Your task to perform on an android device: Search for pizza restaurants on Maps Image 0: 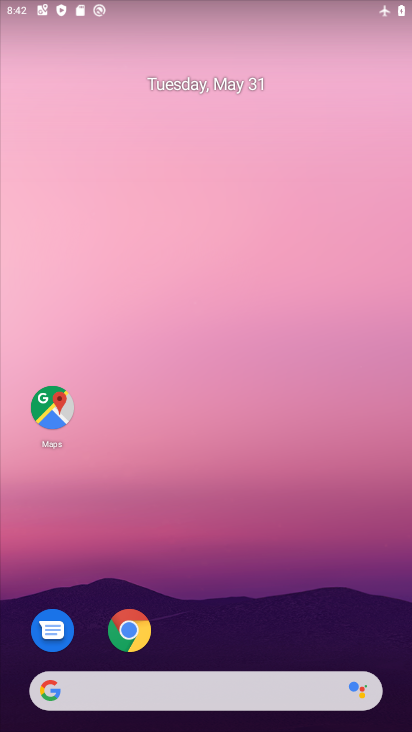
Step 0: click (57, 402)
Your task to perform on an android device: Search for pizza restaurants on Maps Image 1: 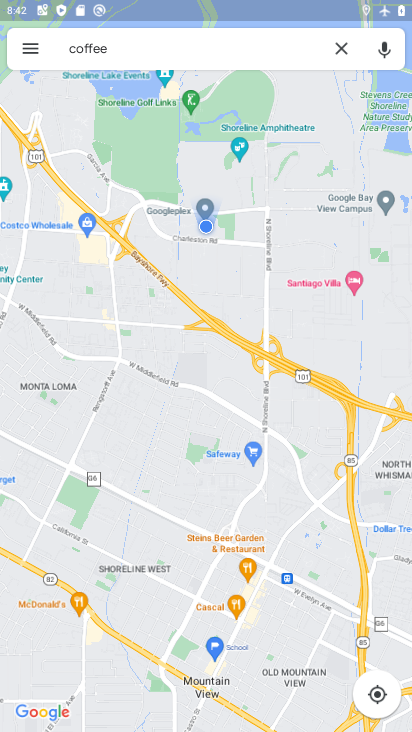
Step 1: click (340, 54)
Your task to perform on an android device: Search for pizza restaurants on Maps Image 2: 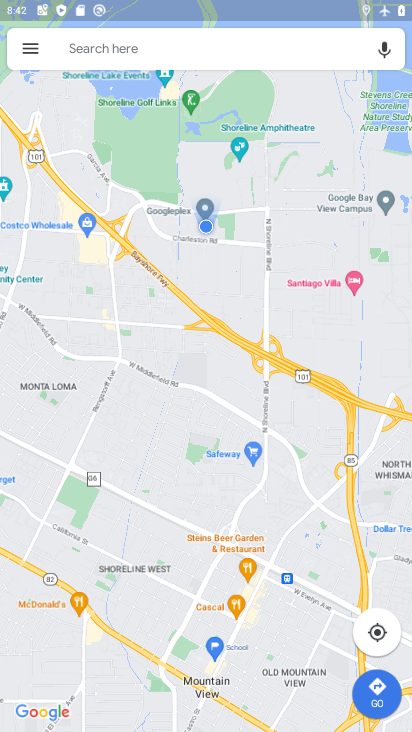
Step 2: click (113, 48)
Your task to perform on an android device: Search for pizza restaurants on Maps Image 3: 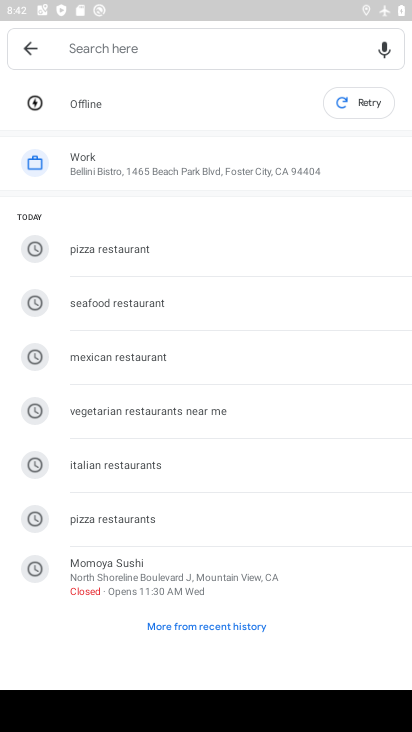
Step 3: click (151, 252)
Your task to perform on an android device: Search for pizza restaurants on Maps Image 4: 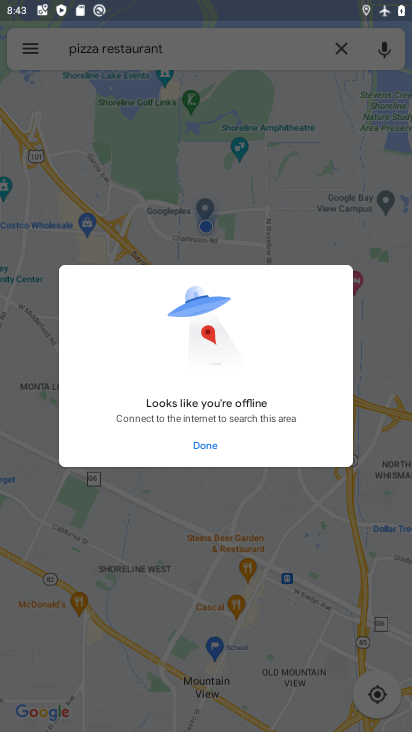
Step 4: task complete